Your task to perform on an android device: Check my email inbox Image 0: 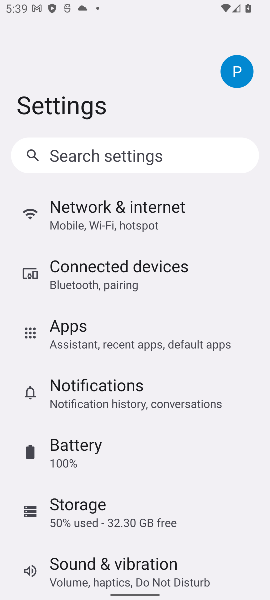
Step 0: press home button
Your task to perform on an android device: Check my email inbox Image 1: 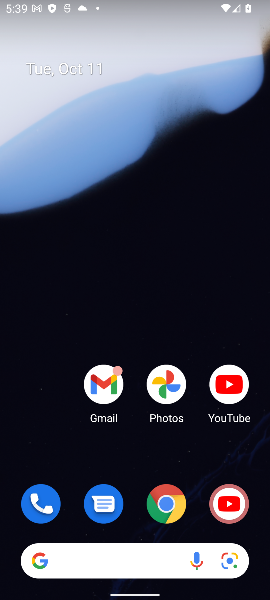
Step 1: drag from (125, 472) to (210, 79)
Your task to perform on an android device: Check my email inbox Image 2: 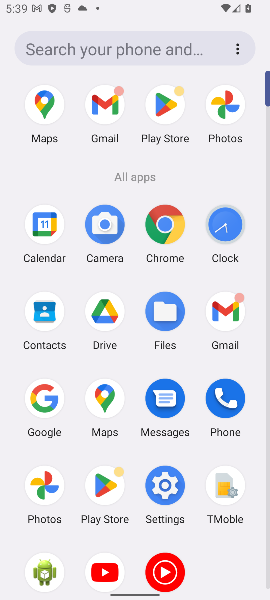
Step 2: click (100, 106)
Your task to perform on an android device: Check my email inbox Image 3: 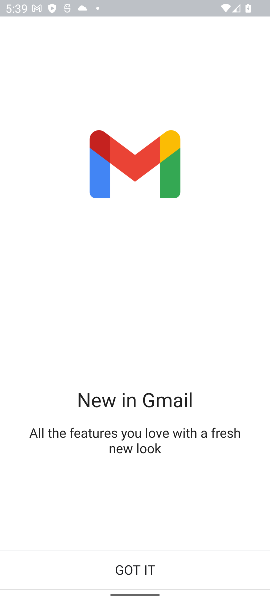
Step 3: click (130, 573)
Your task to perform on an android device: Check my email inbox Image 4: 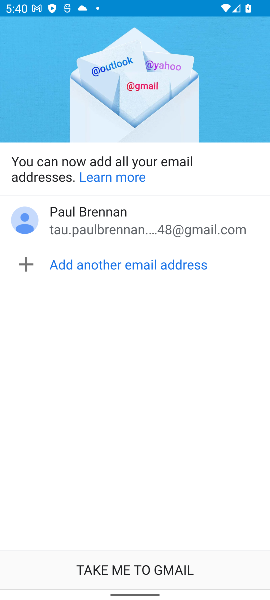
Step 4: click (150, 571)
Your task to perform on an android device: Check my email inbox Image 5: 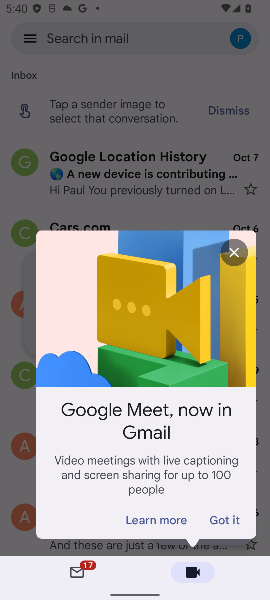
Step 5: click (241, 250)
Your task to perform on an android device: Check my email inbox Image 6: 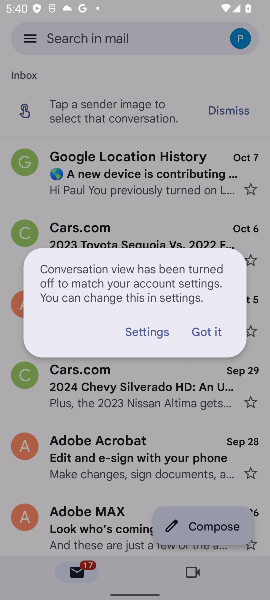
Step 6: click (201, 339)
Your task to perform on an android device: Check my email inbox Image 7: 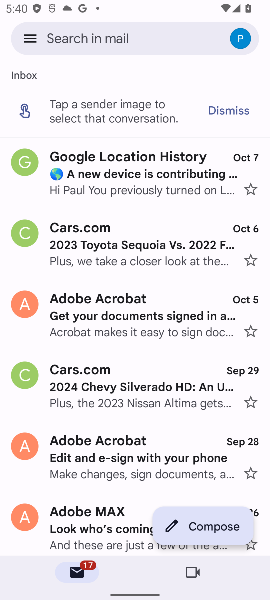
Step 7: task complete